Your task to perform on an android device: Check the news Image 0: 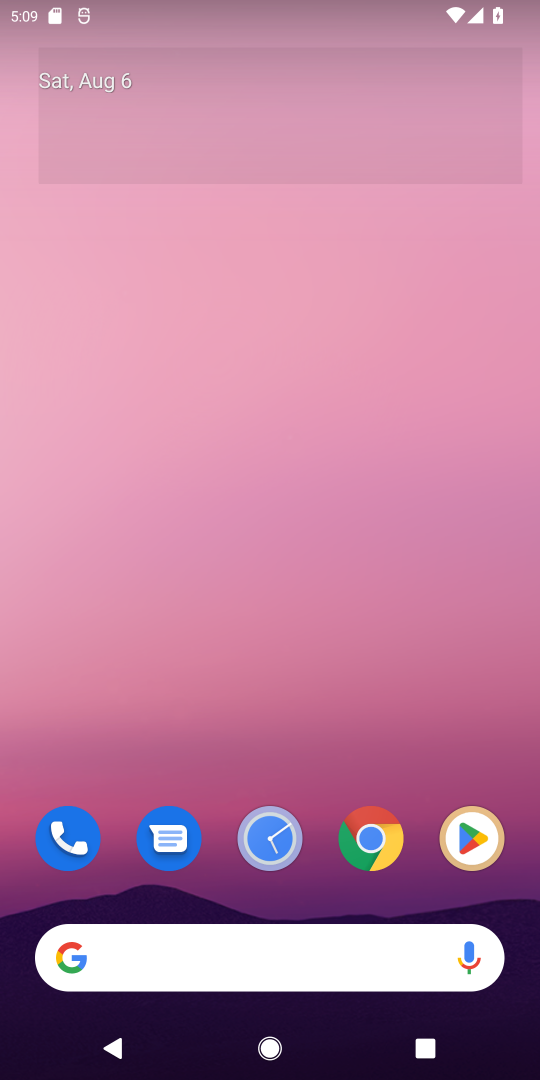
Step 0: press home button
Your task to perform on an android device: Check the news Image 1: 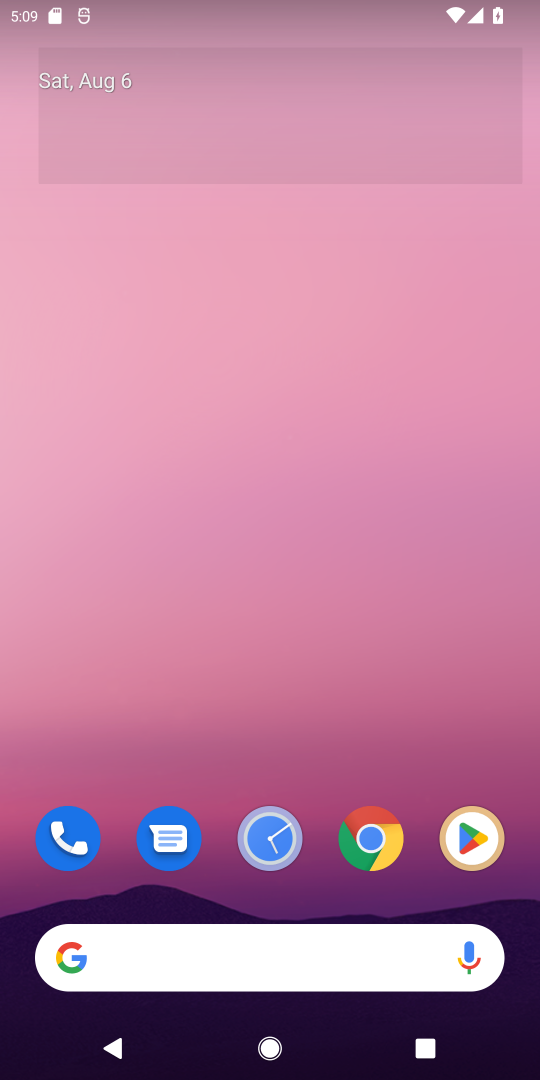
Step 1: press home button
Your task to perform on an android device: Check the news Image 2: 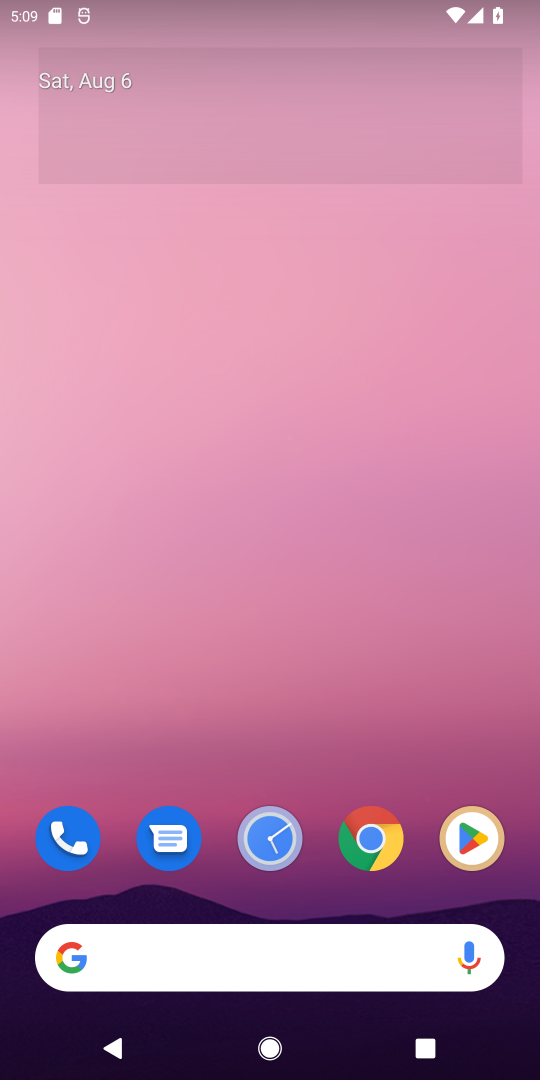
Step 2: press home button
Your task to perform on an android device: Check the news Image 3: 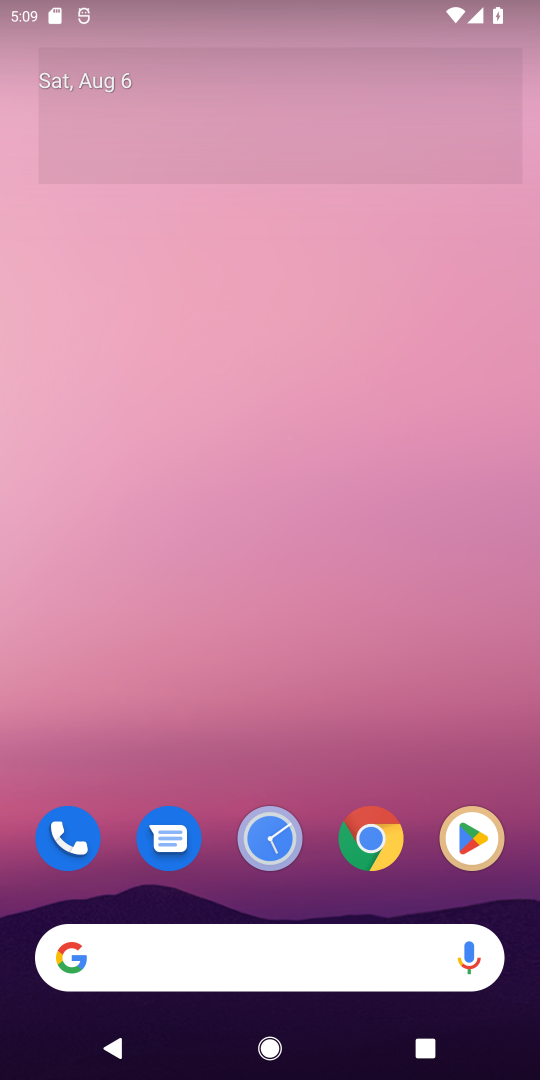
Step 3: press home button
Your task to perform on an android device: Check the news Image 4: 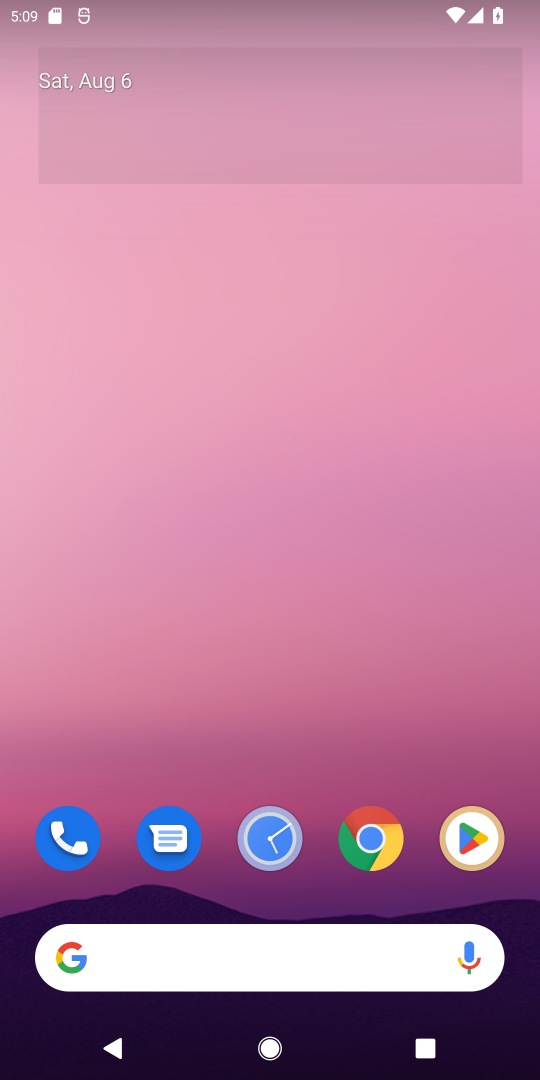
Step 4: click (65, 956)
Your task to perform on an android device: Check the news Image 5: 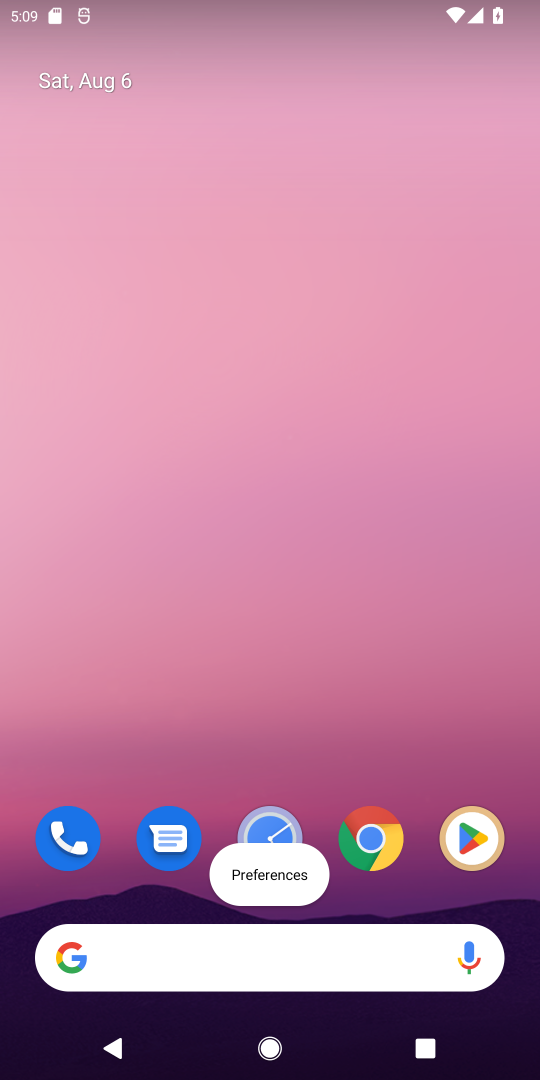
Step 5: click (68, 953)
Your task to perform on an android device: Check the news Image 6: 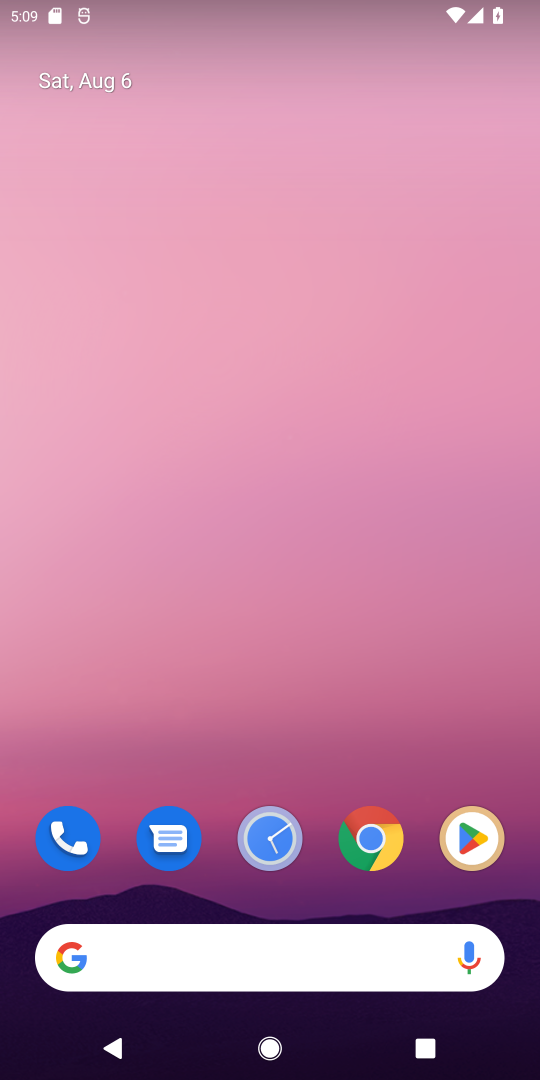
Step 6: click (67, 956)
Your task to perform on an android device: Check the news Image 7: 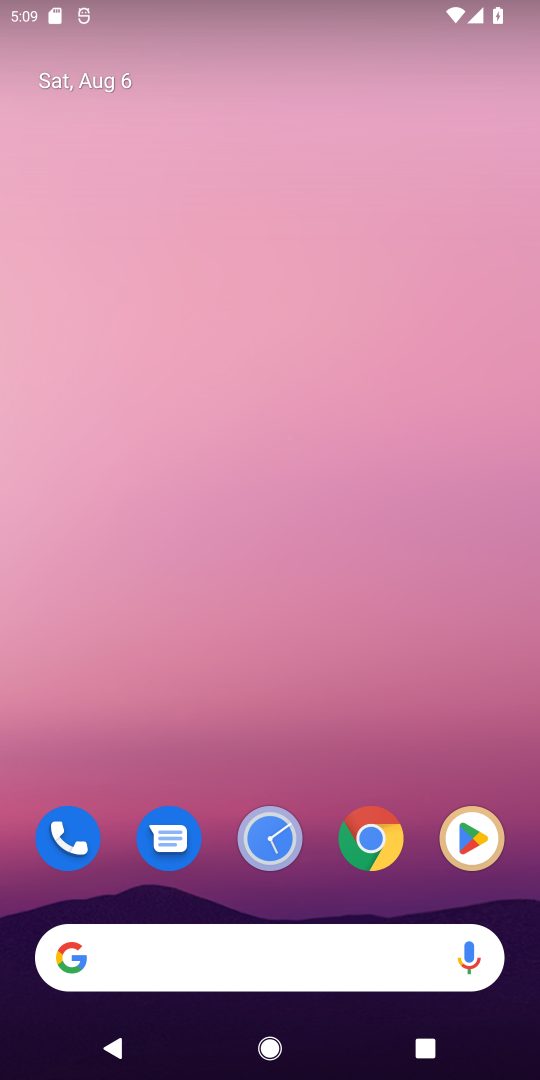
Step 7: click (65, 951)
Your task to perform on an android device: Check the news Image 8: 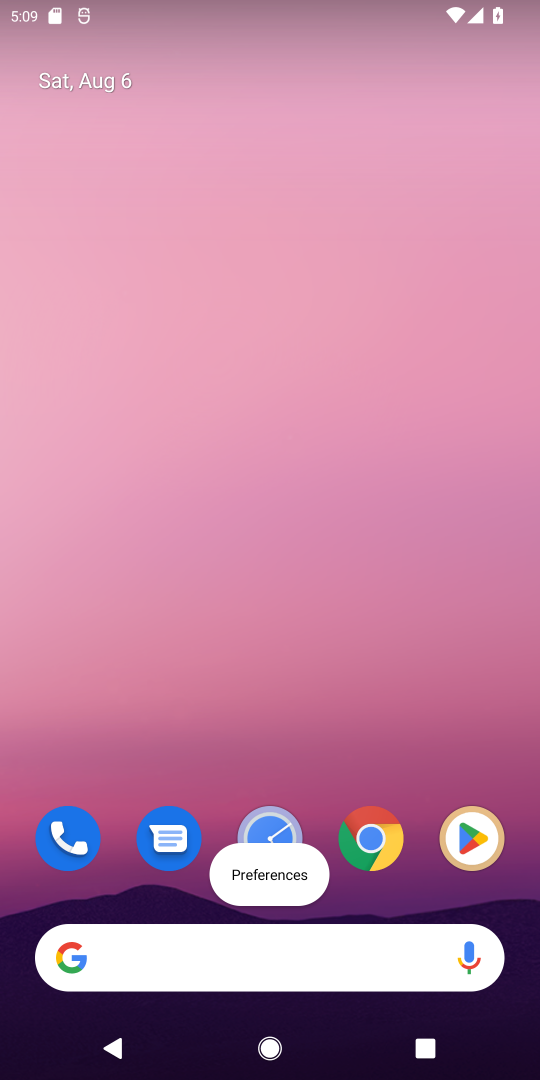
Step 8: click (65, 951)
Your task to perform on an android device: Check the news Image 9: 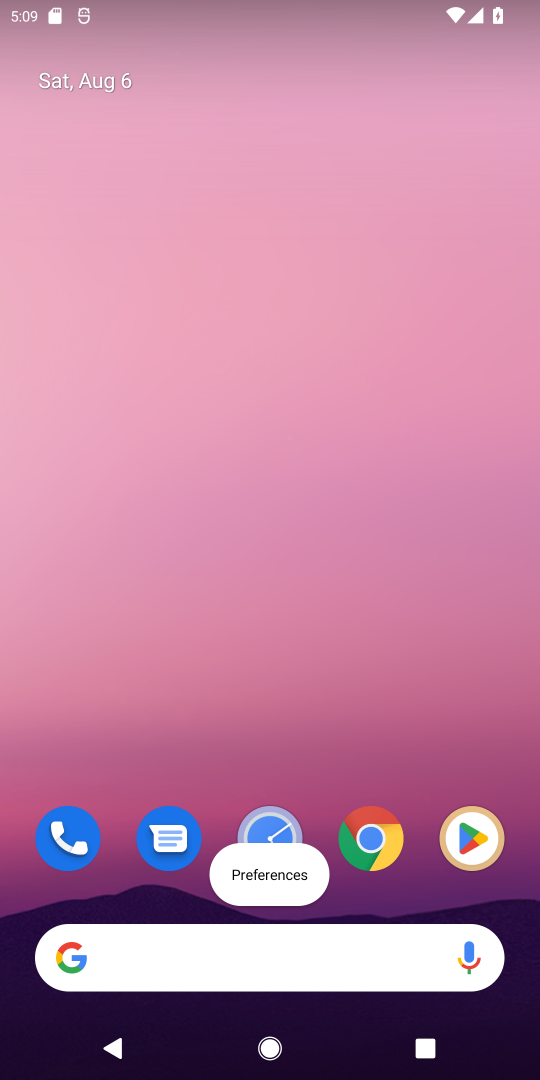
Step 9: click (71, 955)
Your task to perform on an android device: Check the news Image 10: 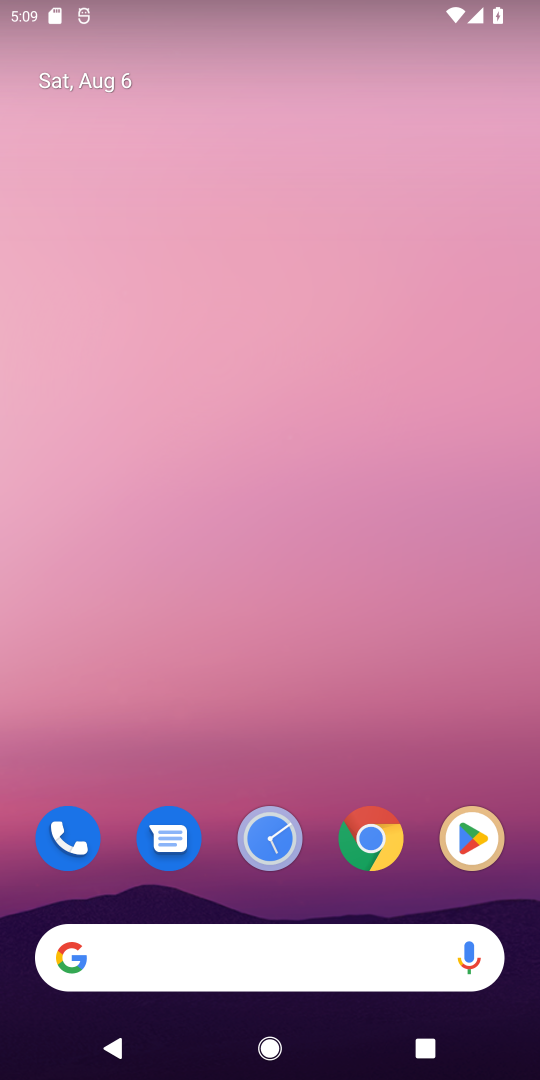
Step 10: drag from (375, 676) to (465, 22)
Your task to perform on an android device: Check the news Image 11: 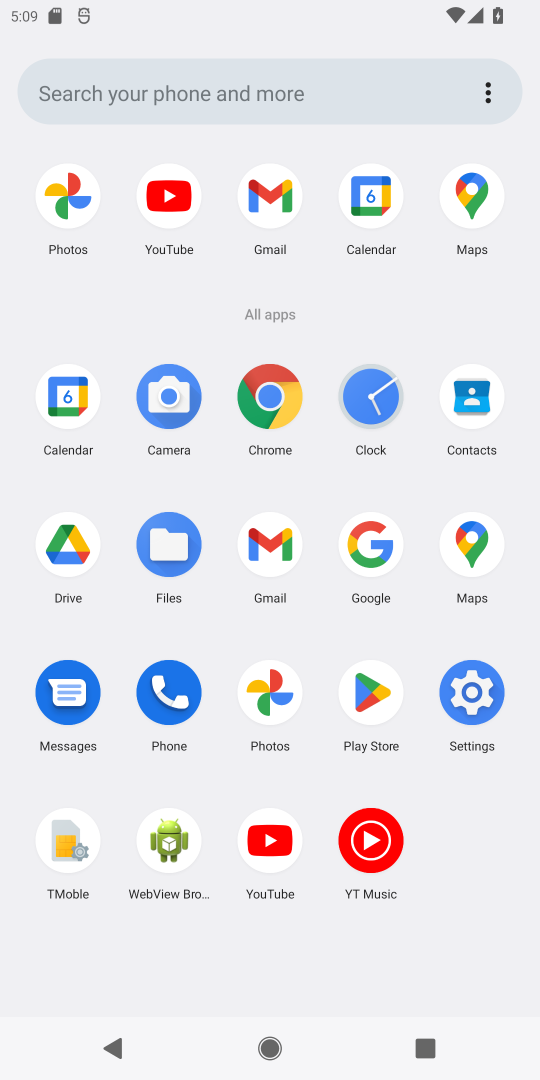
Step 11: click (375, 546)
Your task to perform on an android device: Check the news Image 12: 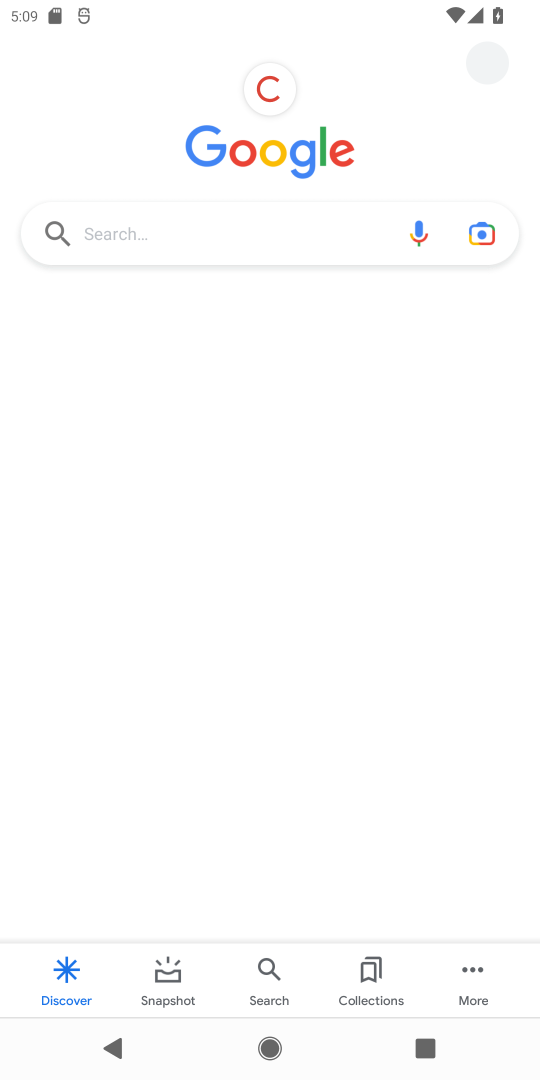
Step 12: type " news"
Your task to perform on an android device: Check the news Image 13: 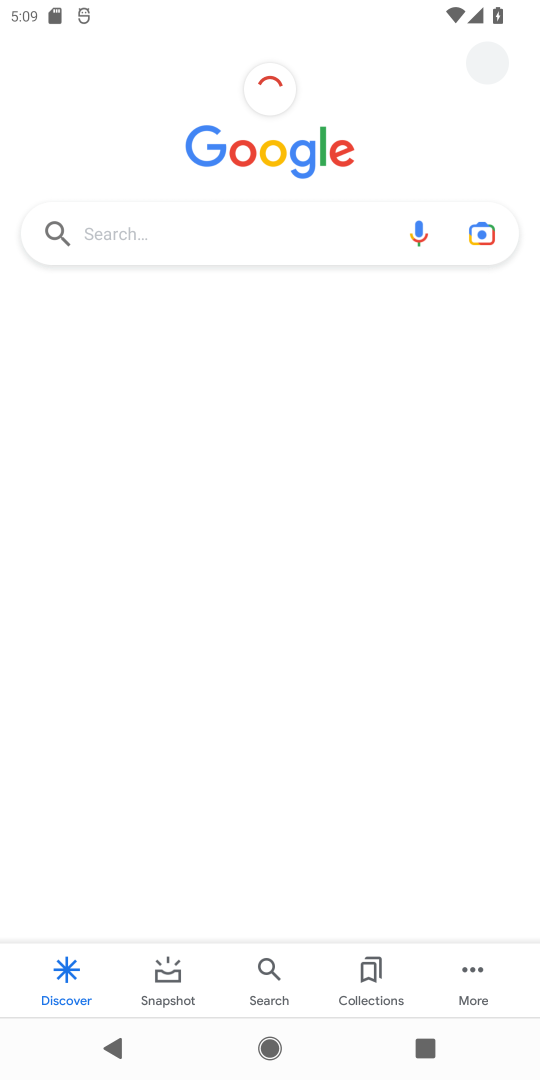
Step 13: click (137, 223)
Your task to perform on an android device: Check the news Image 14: 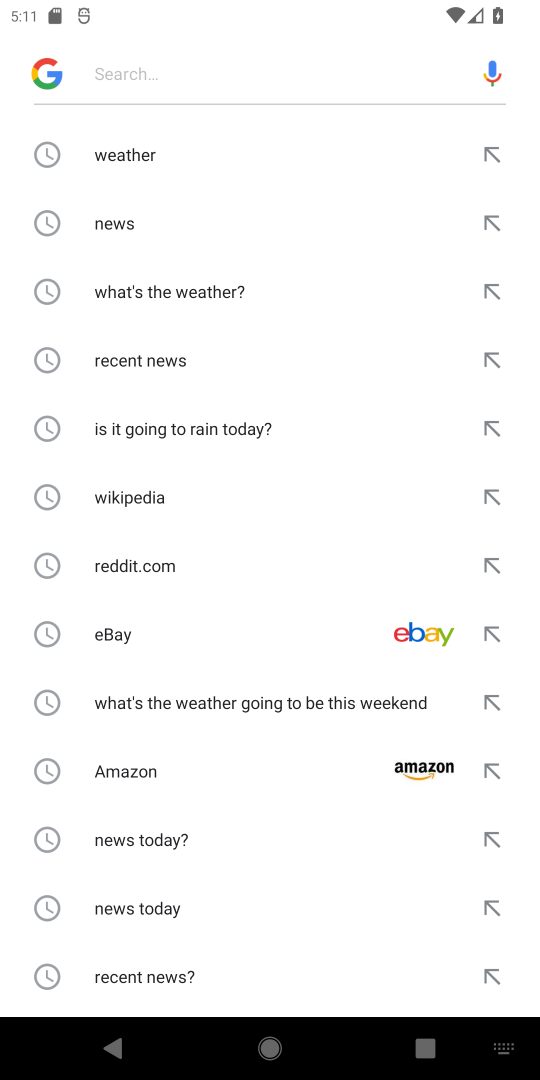
Step 14: press enter
Your task to perform on an android device: Check the news Image 15: 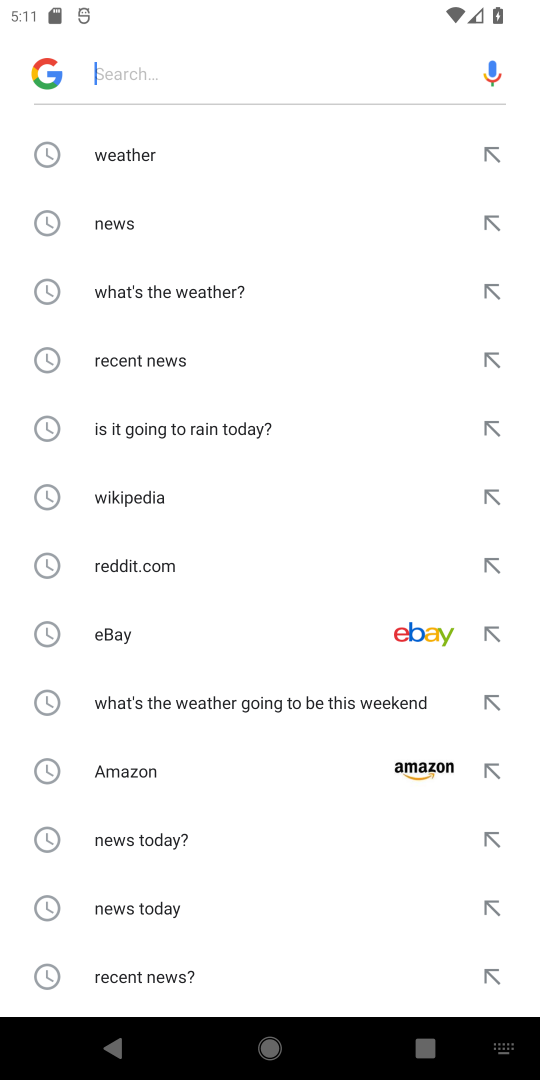
Step 15: type "news"
Your task to perform on an android device: Check the news Image 16: 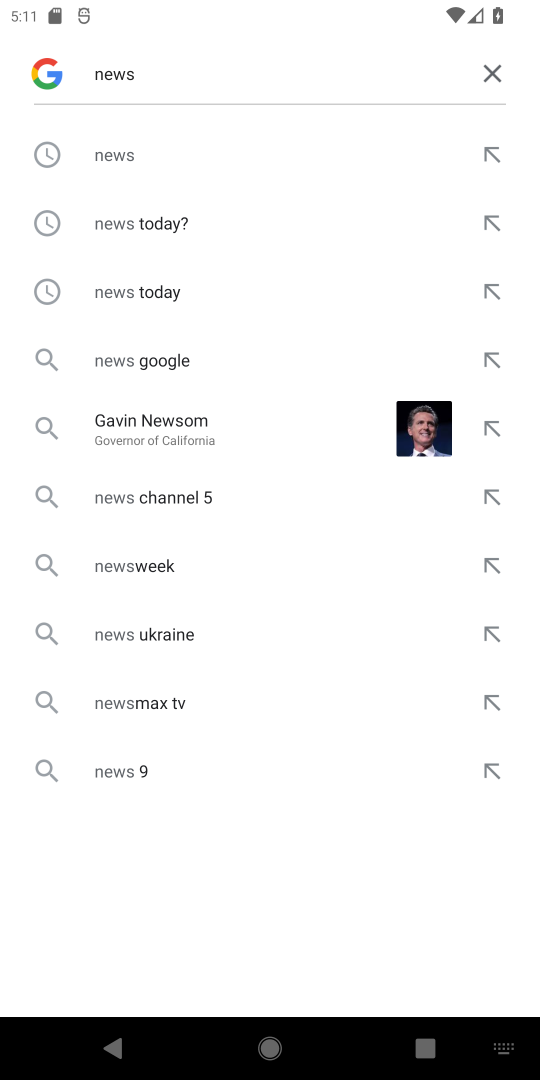
Step 16: click (137, 159)
Your task to perform on an android device: Check the news Image 17: 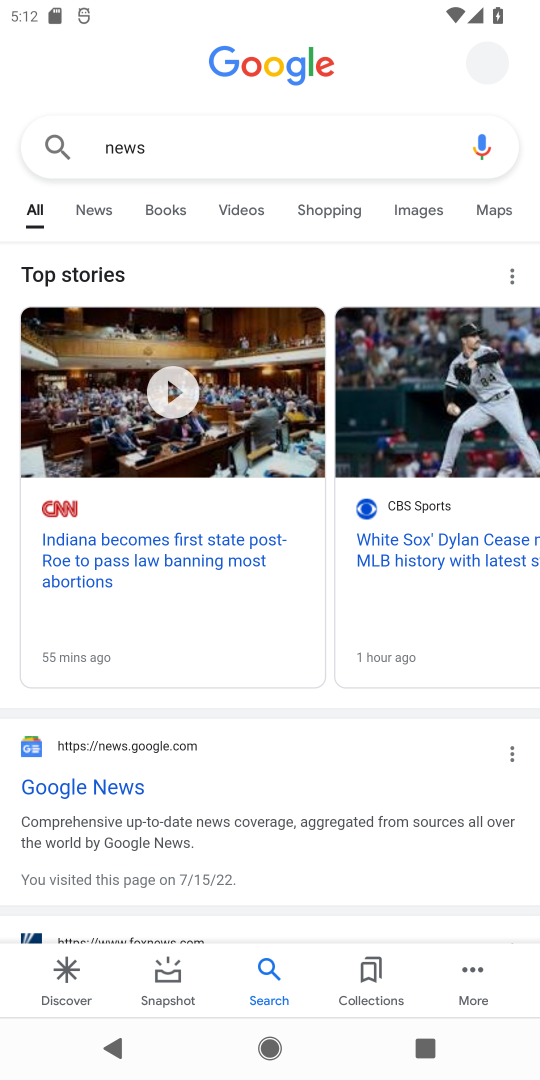
Step 17: task complete